Your task to perform on an android device: Show me popular videos on Youtube Image 0: 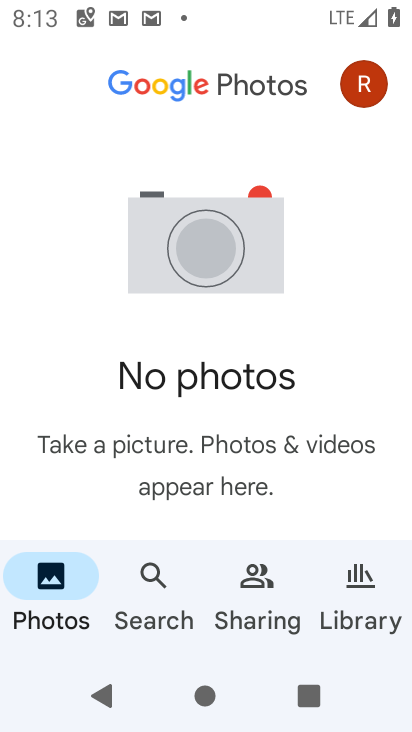
Step 0: press home button
Your task to perform on an android device: Show me popular videos on Youtube Image 1: 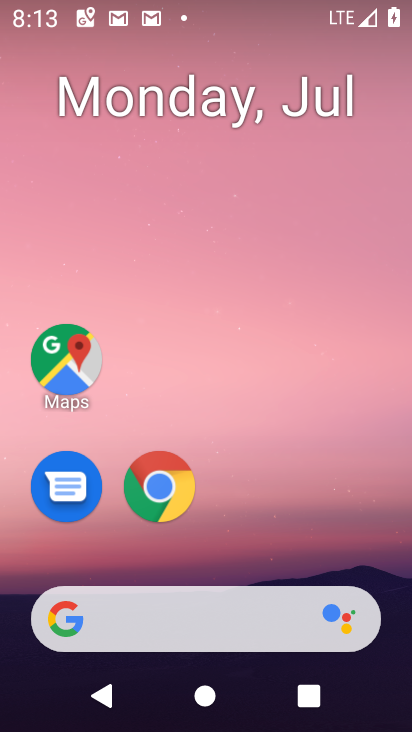
Step 1: drag from (383, 538) to (371, 129)
Your task to perform on an android device: Show me popular videos on Youtube Image 2: 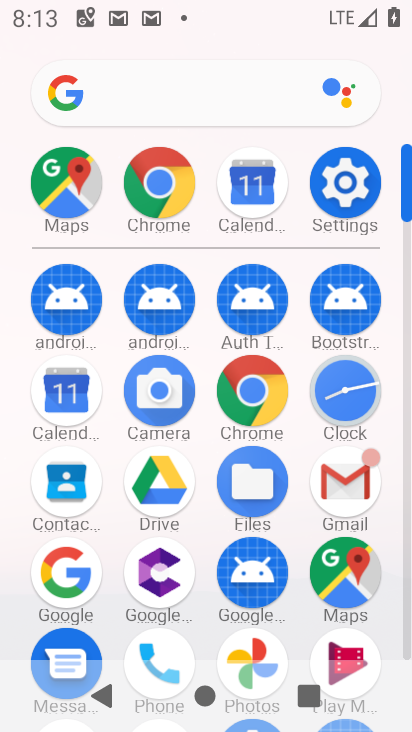
Step 2: drag from (391, 428) to (387, 187)
Your task to perform on an android device: Show me popular videos on Youtube Image 3: 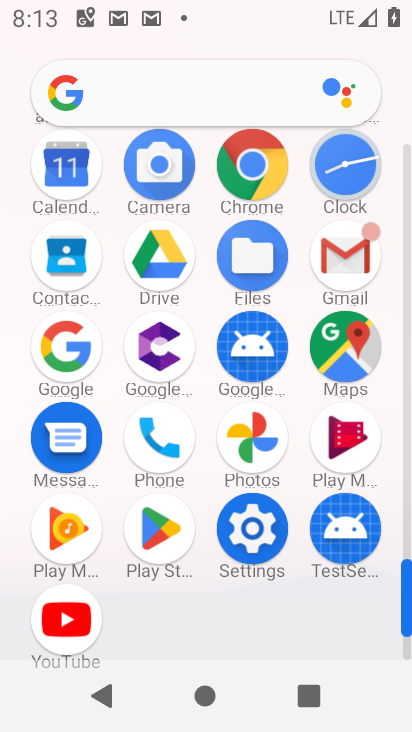
Step 3: click (69, 617)
Your task to perform on an android device: Show me popular videos on Youtube Image 4: 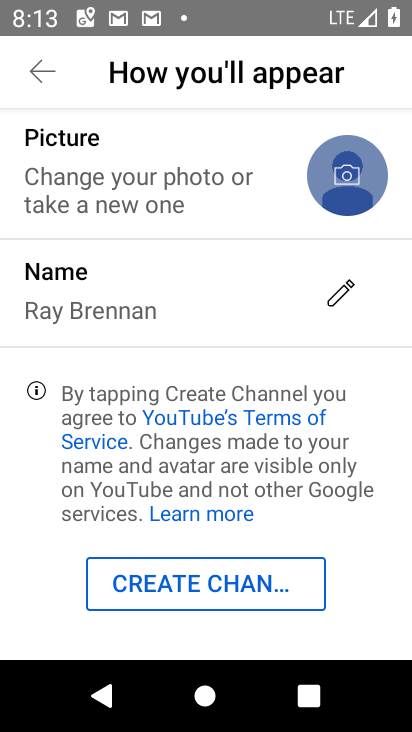
Step 4: task complete